Your task to perform on an android device: open a bookmark in the chrome app Image 0: 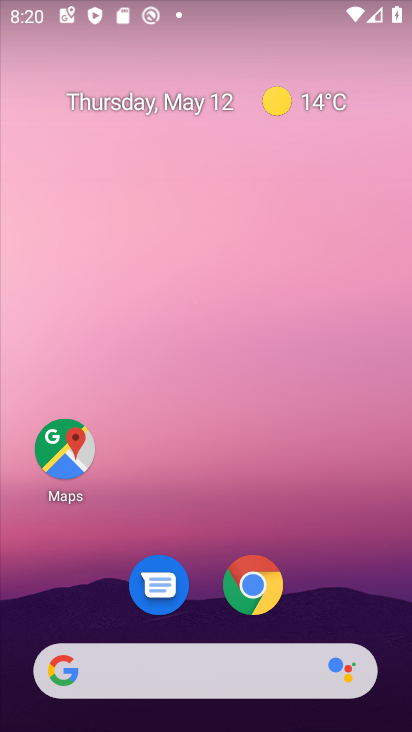
Step 0: click (268, 565)
Your task to perform on an android device: open a bookmark in the chrome app Image 1: 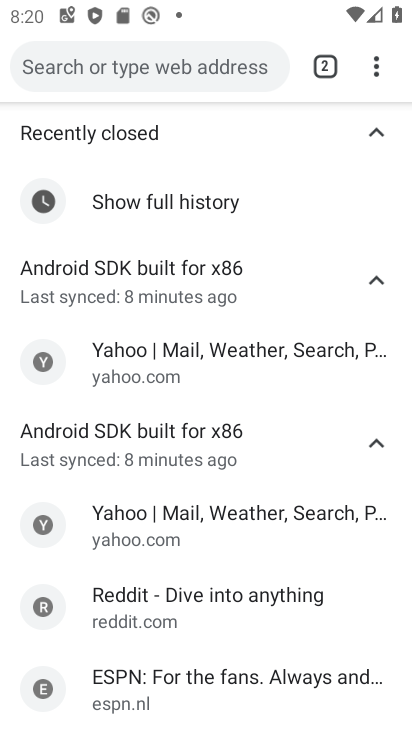
Step 1: click (367, 66)
Your task to perform on an android device: open a bookmark in the chrome app Image 2: 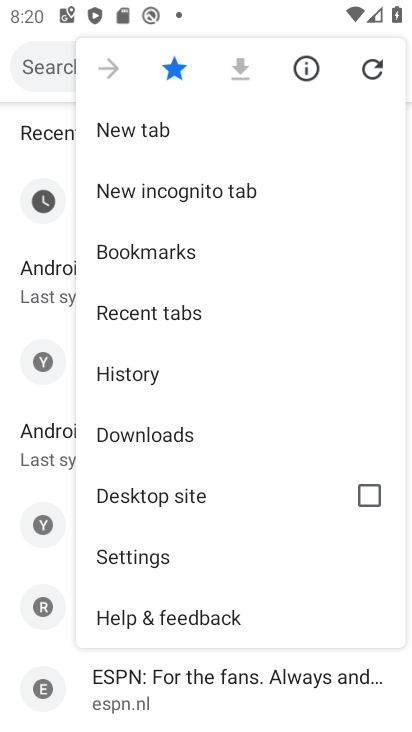
Step 2: click (219, 248)
Your task to perform on an android device: open a bookmark in the chrome app Image 3: 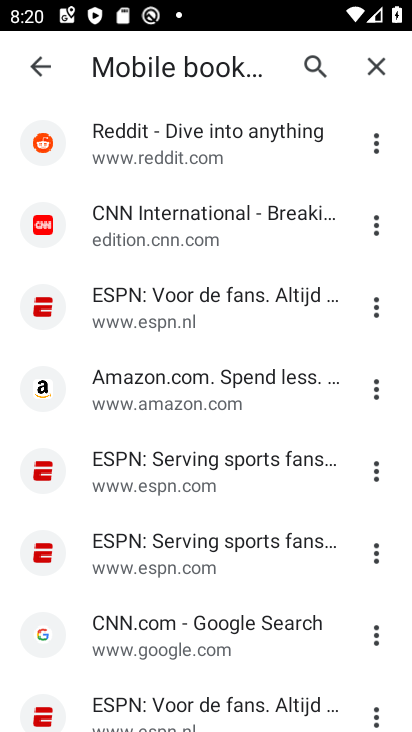
Step 3: click (211, 223)
Your task to perform on an android device: open a bookmark in the chrome app Image 4: 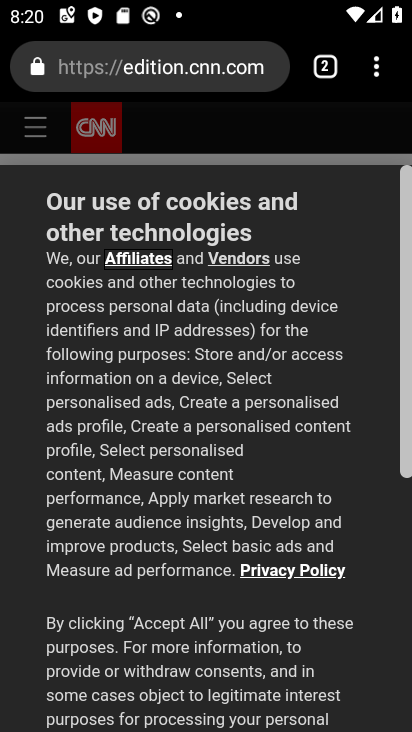
Step 4: task complete